Your task to perform on an android device: View the shopping cart on target. Add "razer blade" to the cart on target Image 0: 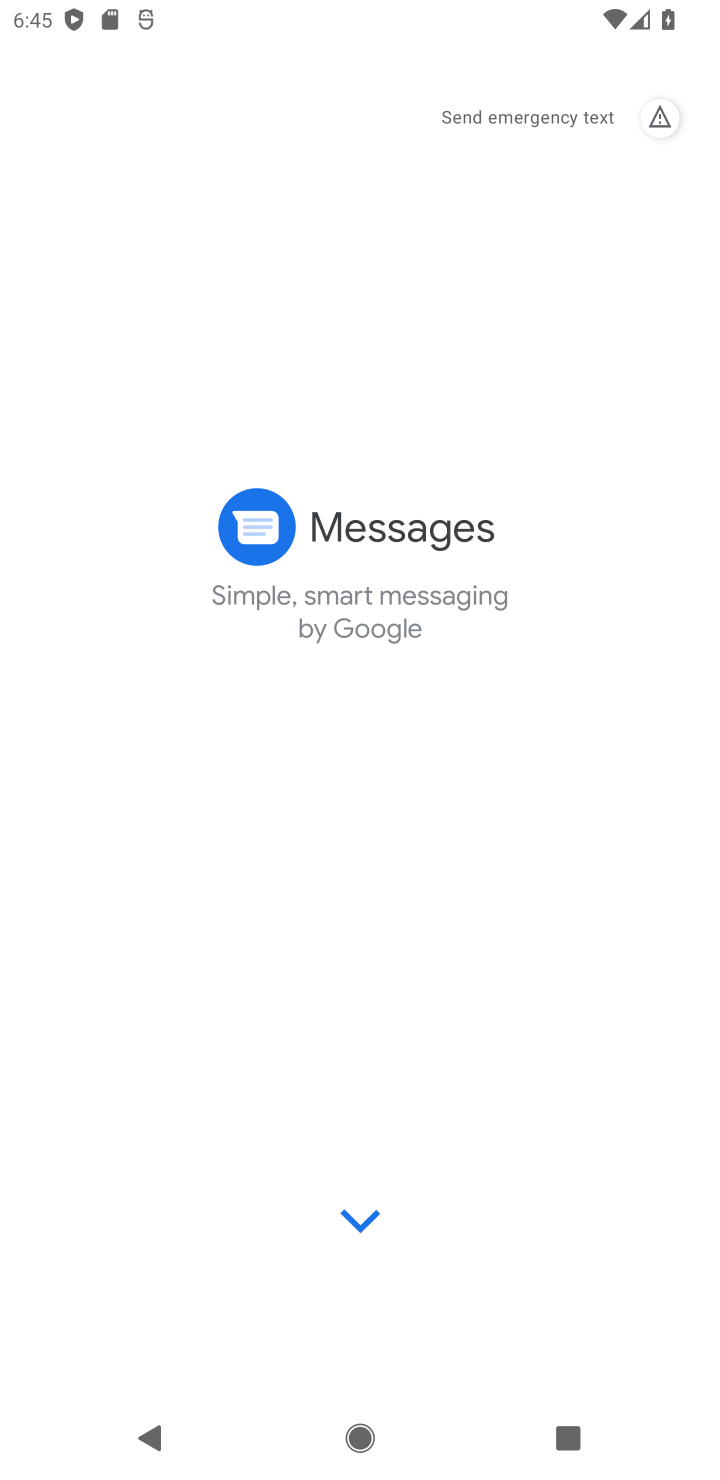
Step 0: press home button
Your task to perform on an android device: View the shopping cart on target. Add "razer blade" to the cart on target Image 1: 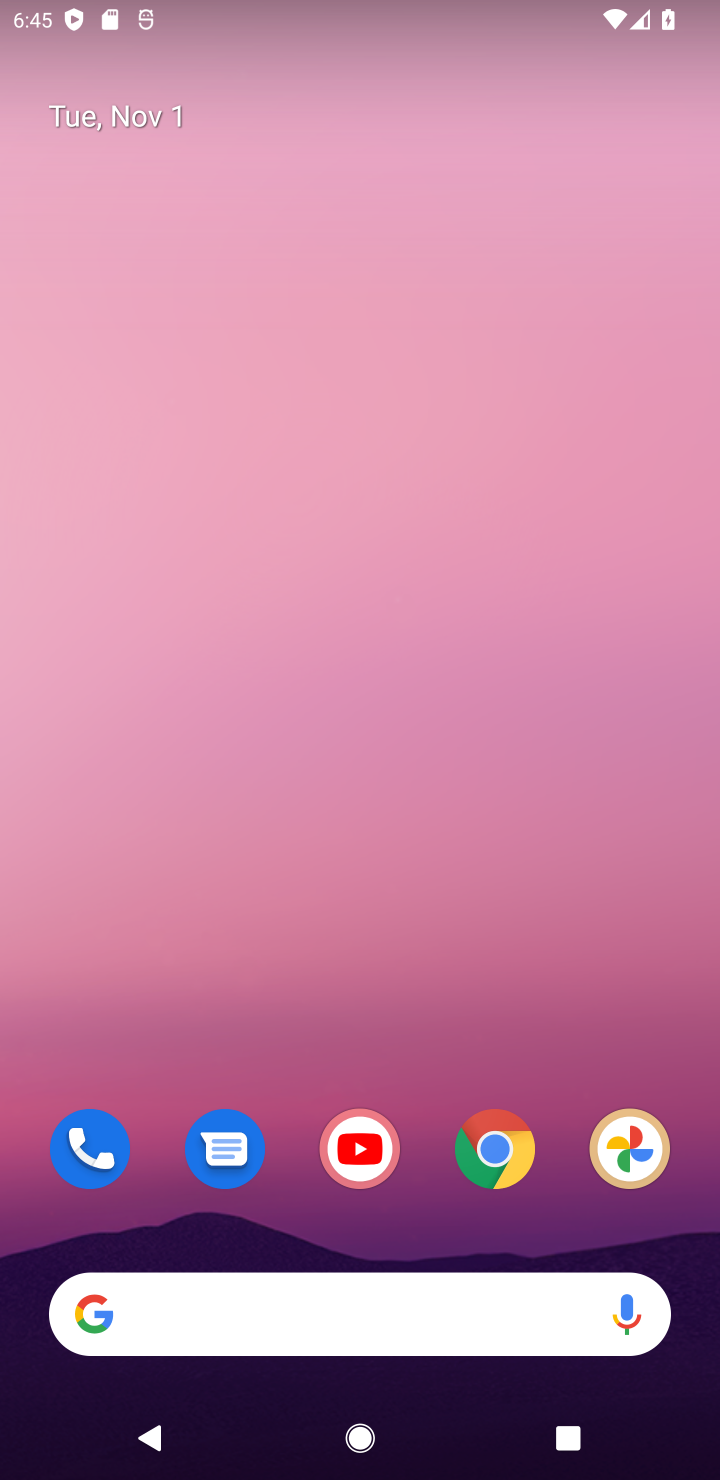
Step 1: drag from (411, 1242) to (487, 263)
Your task to perform on an android device: View the shopping cart on target. Add "razer blade" to the cart on target Image 2: 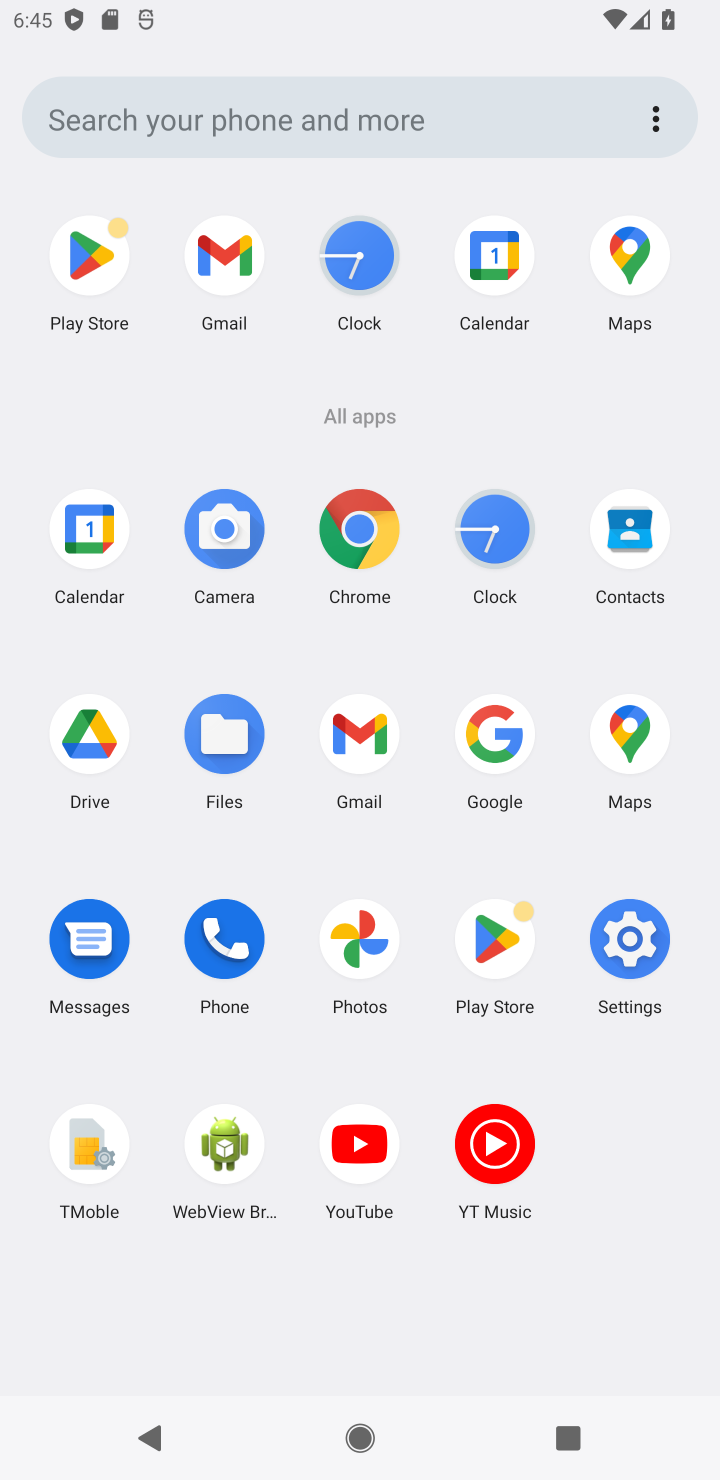
Step 2: click (368, 532)
Your task to perform on an android device: View the shopping cart on target. Add "razer blade" to the cart on target Image 3: 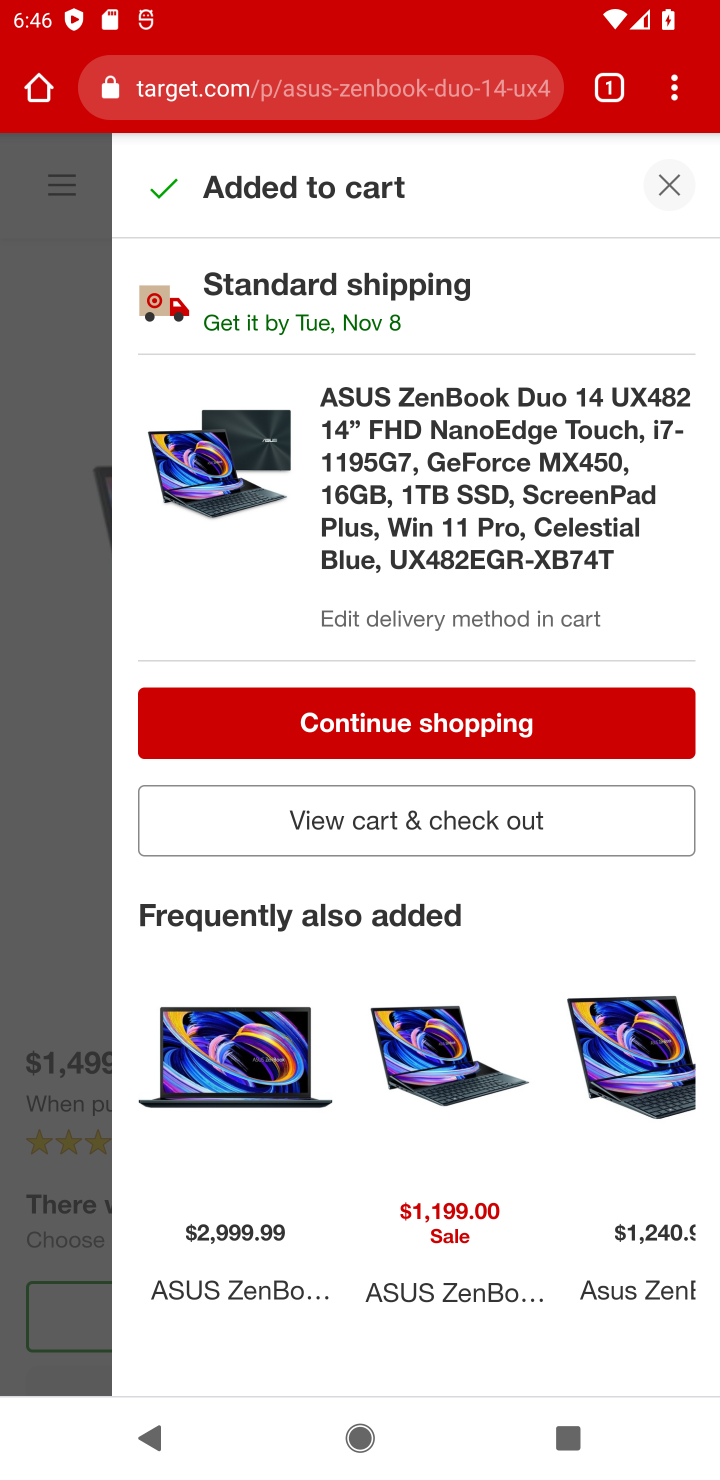
Step 3: click (411, 88)
Your task to perform on an android device: View the shopping cart on target. Add "razer blade" to the cart on target Image 4: 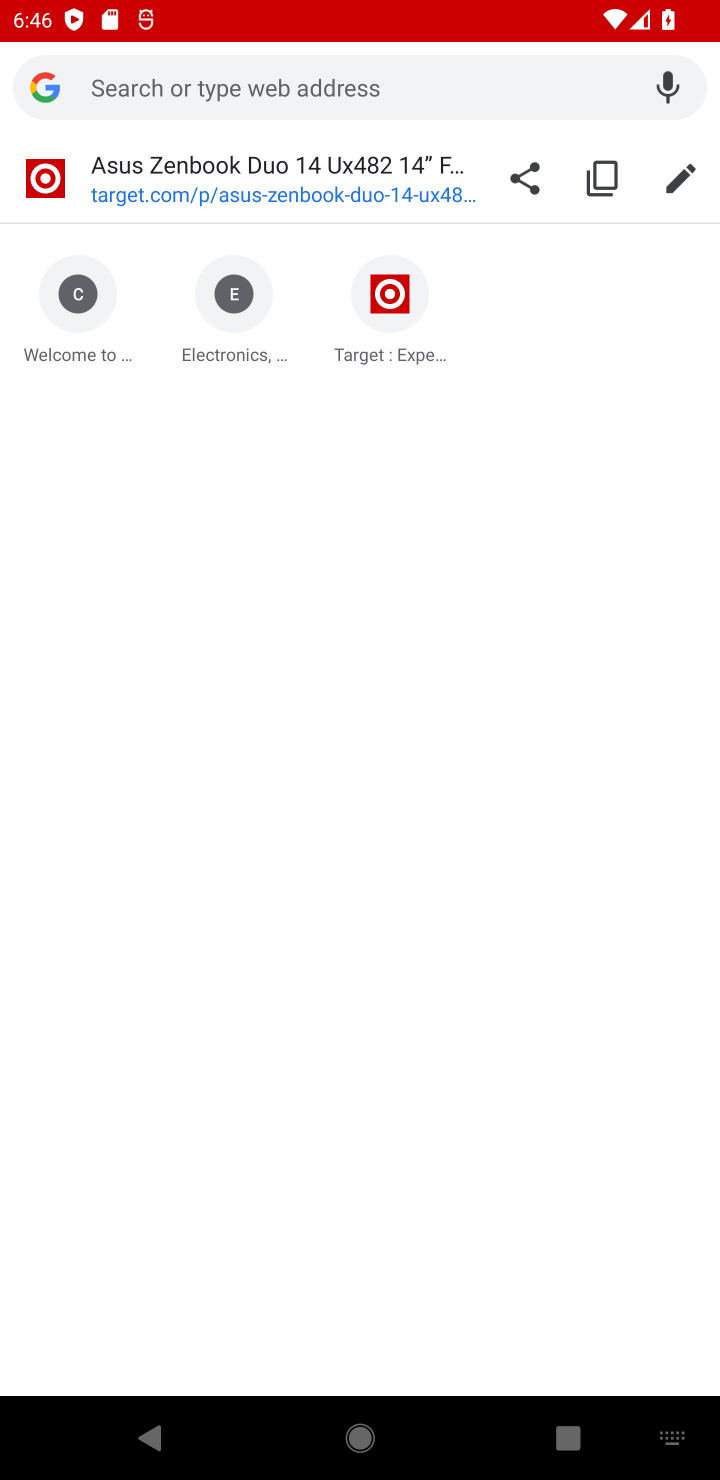
Step 4: type "target.com"
Your task to perform on an android device: View the shopping cart on target. Add "razer blade" to the cart on target Image 5: 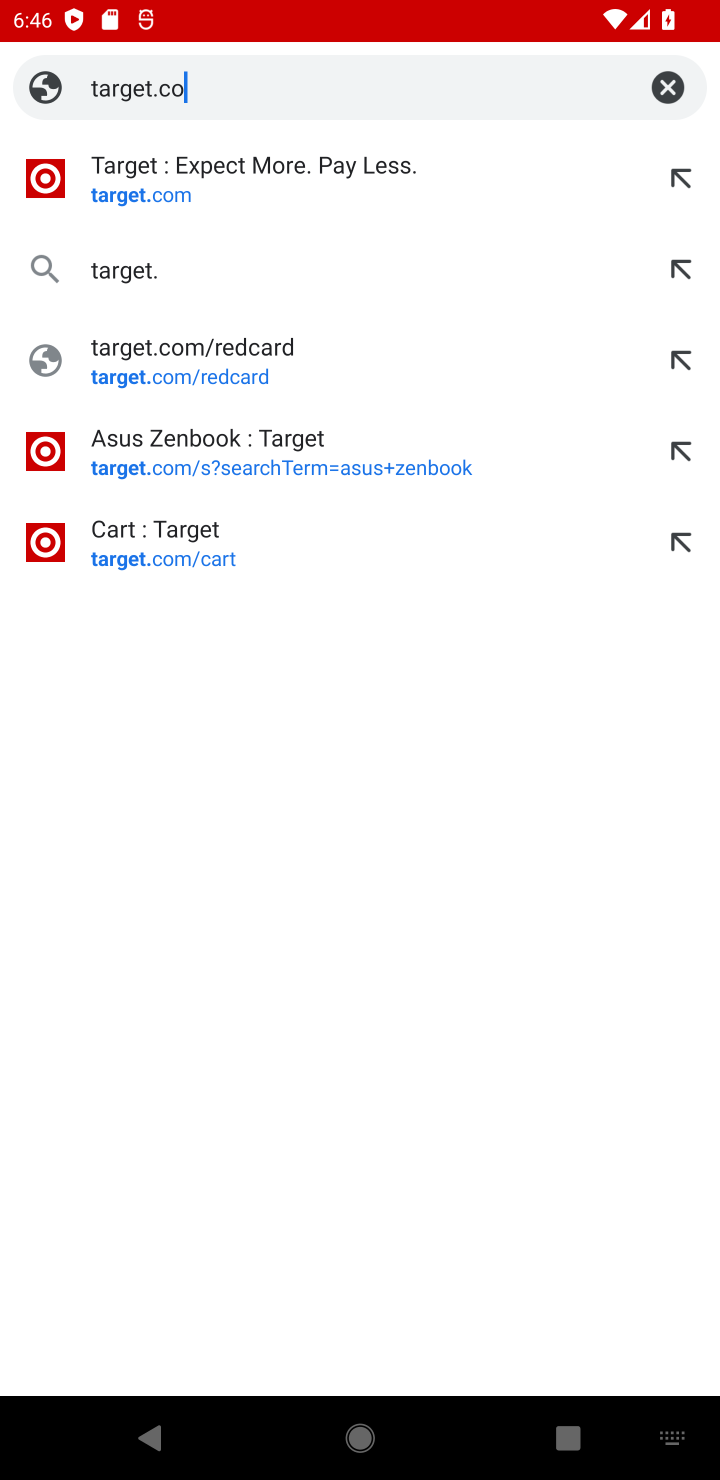
Step 5: press enter
Your task to perform on an android device: View the shopping cart on target. Add "razer blade" to the cart on target Image 6: 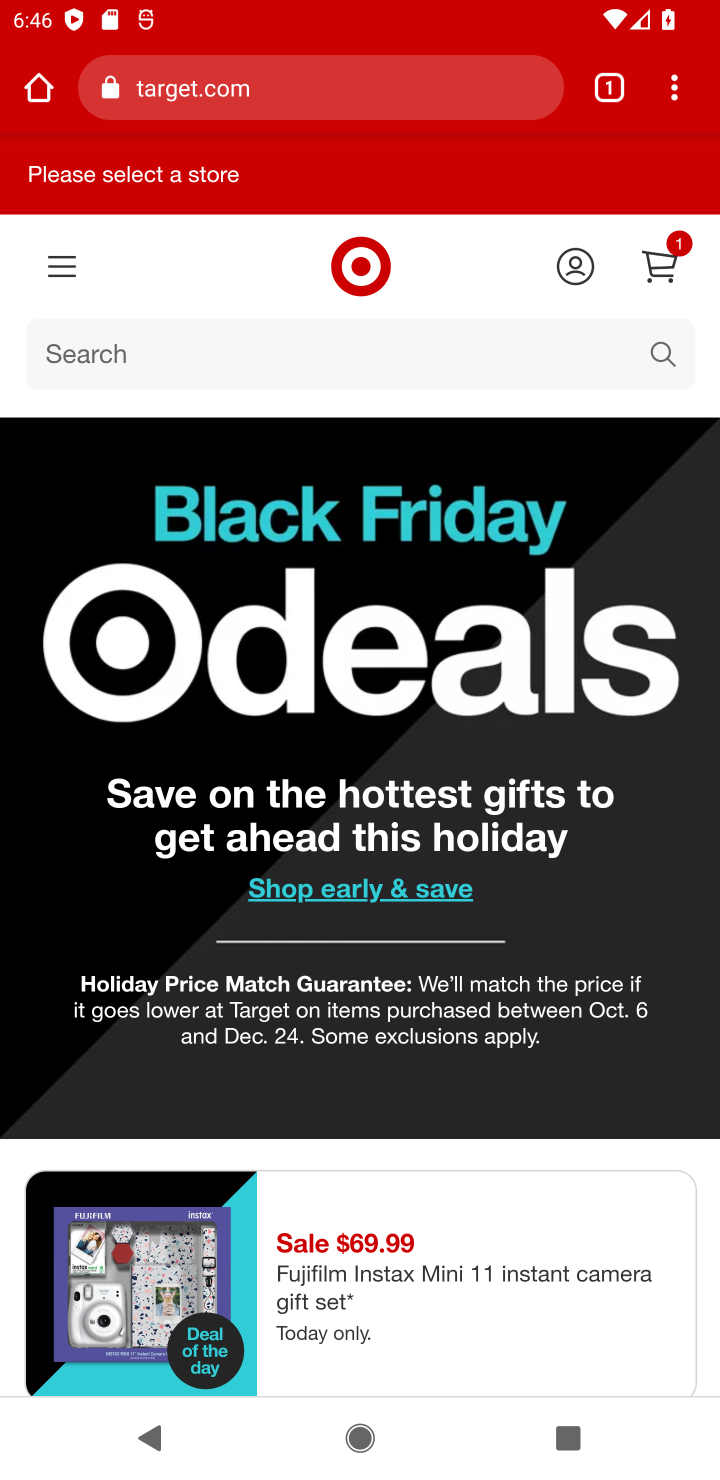
Step 6: click (665, 284)
Your task to perform on an android device: View the shopping cart on target. Add "razer blade" to the cart on target Image 7: 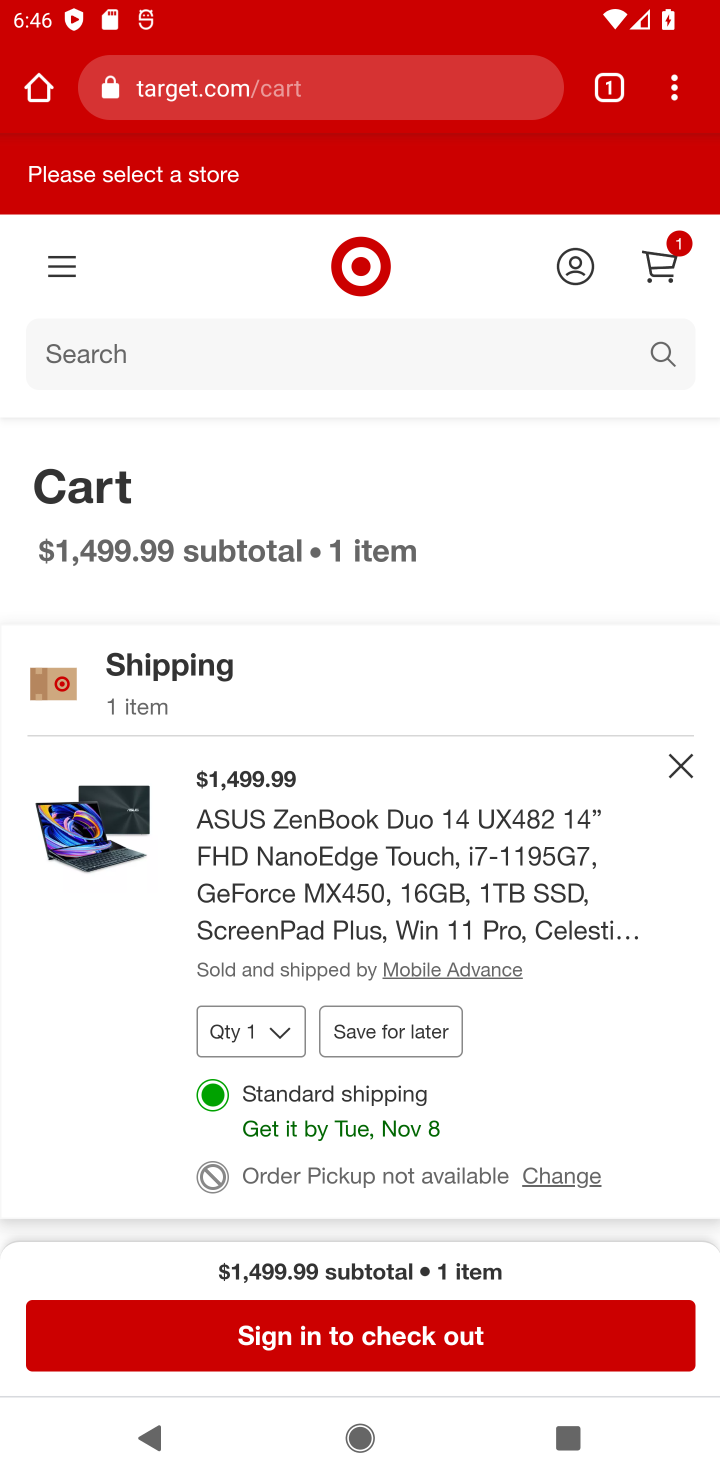
Step 7: click (690, 757)
Your task to perform on an android device: View the shopping cart on target. Add "razer blade" to the cart on target Image 8: 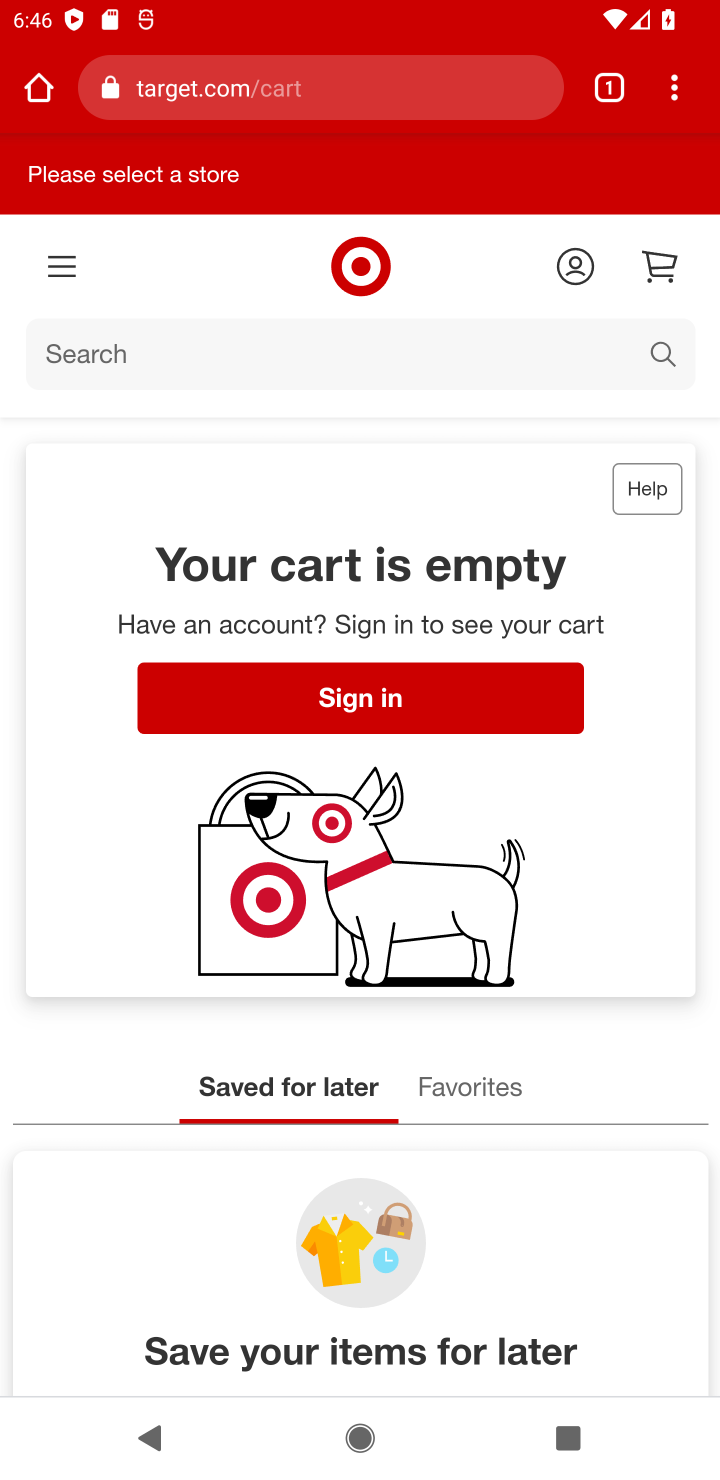
Step 8: click (547, 362)
Your task to perform on an android device: View the shopping cart on target. Add "razer blade" to the cart on target Image 9: 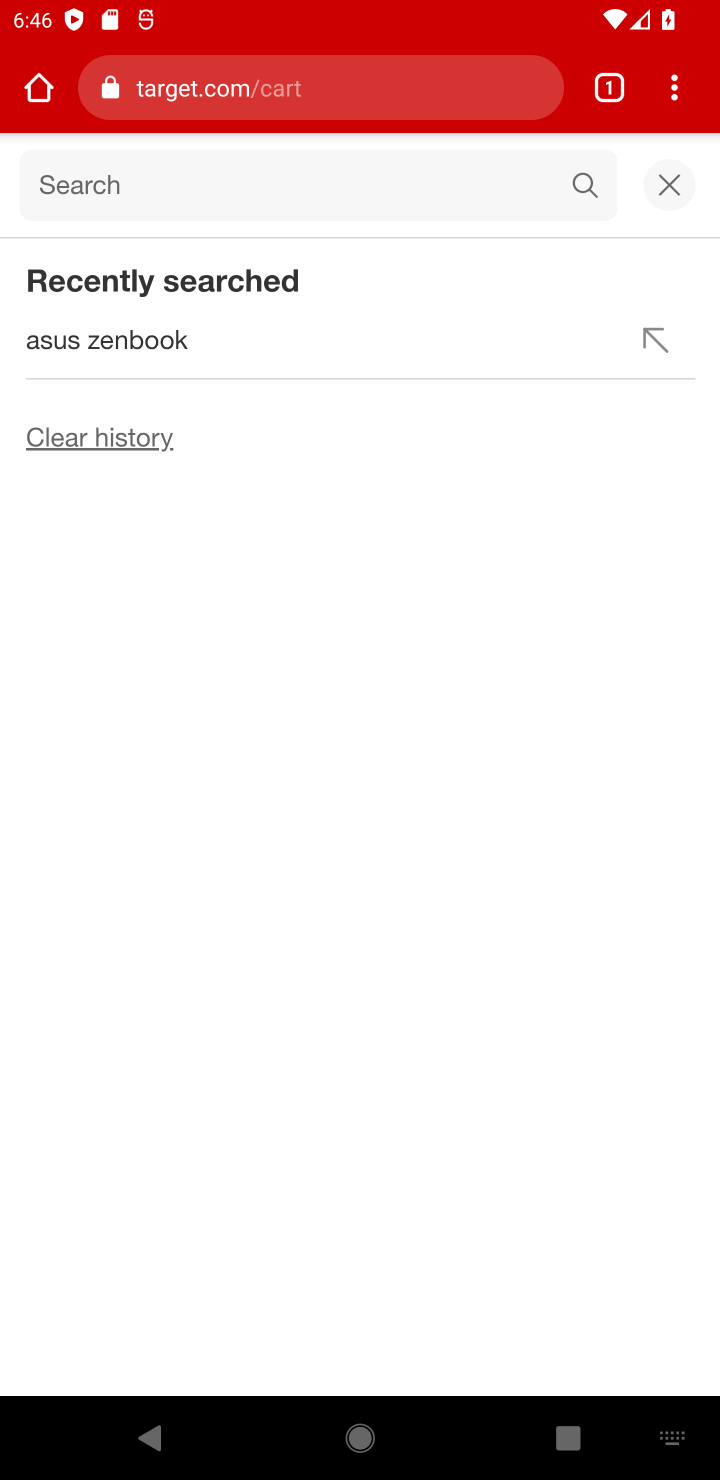
Step 9: type "razer blade"
Your task to perform on an android device: View the shopping cart on target. Add "razer blade" to the cart on target Image 10: 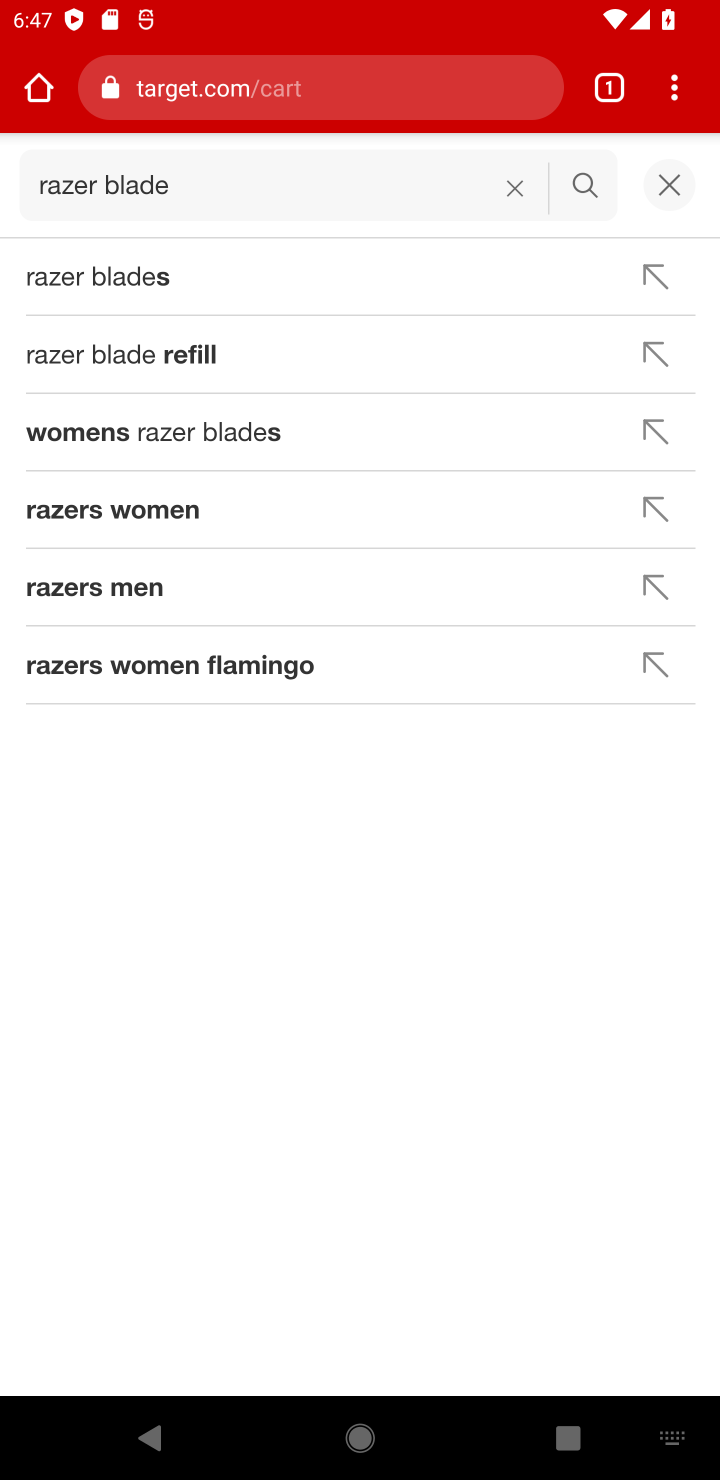
Step 10: press enter
Your task to perform on an android device: View the shopping cart on target. Add "razer blade" to the cart on target Image 11: 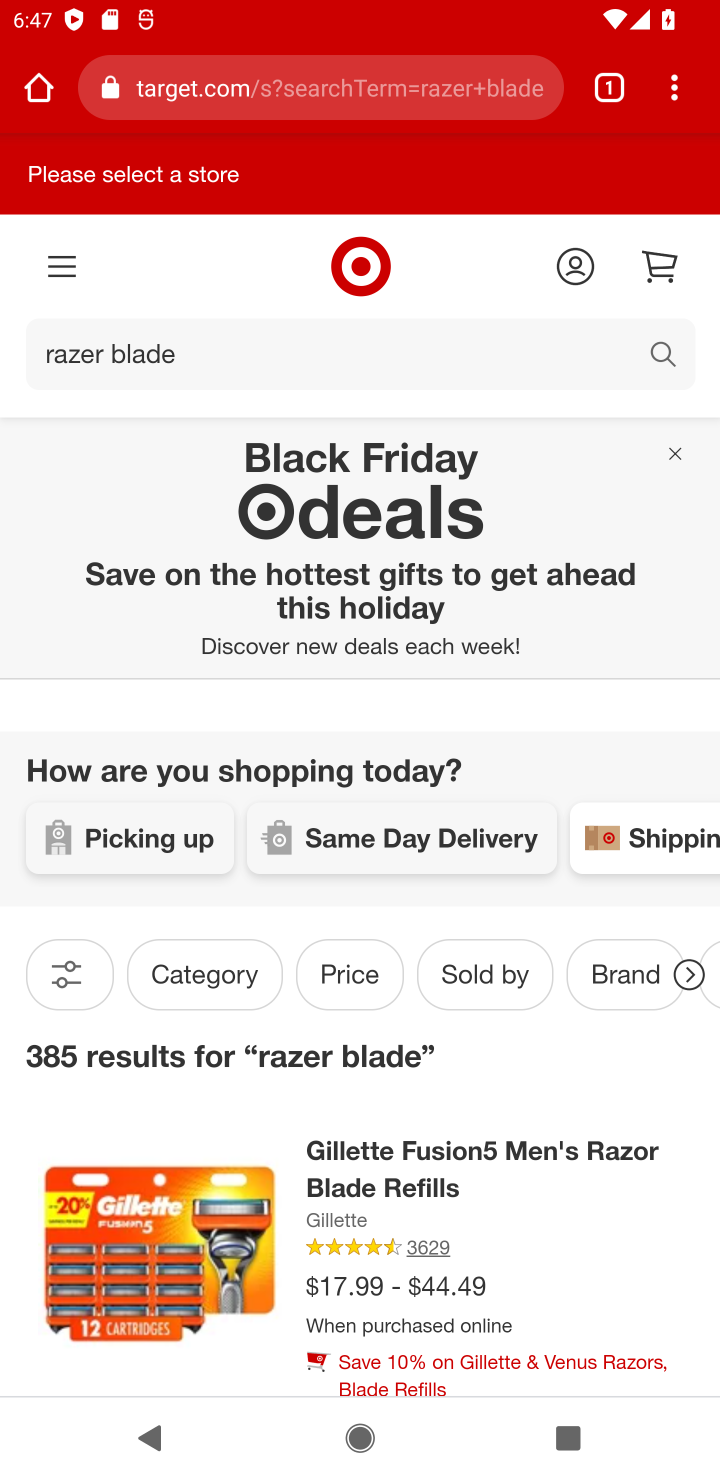
Step 11: drag from (442, 1258) to (485, 690)
Your task to perform on an android device: View the shopping cart on target. Add "razer blade" to the cart on target Image 12: 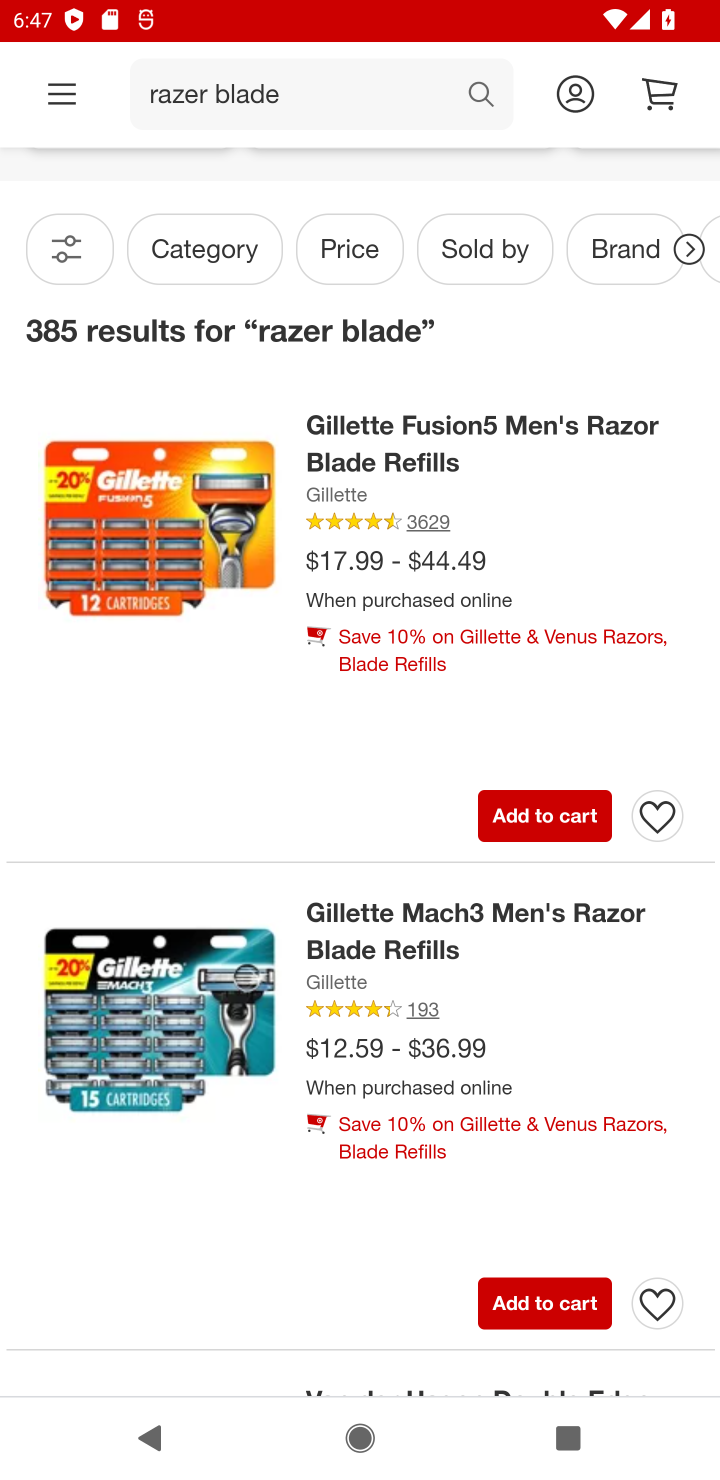
Step 12: click (538, 817)
Your task to perform on an android device: View the shopping cart on target. Add "razer blade" to the cart on target Image 13: 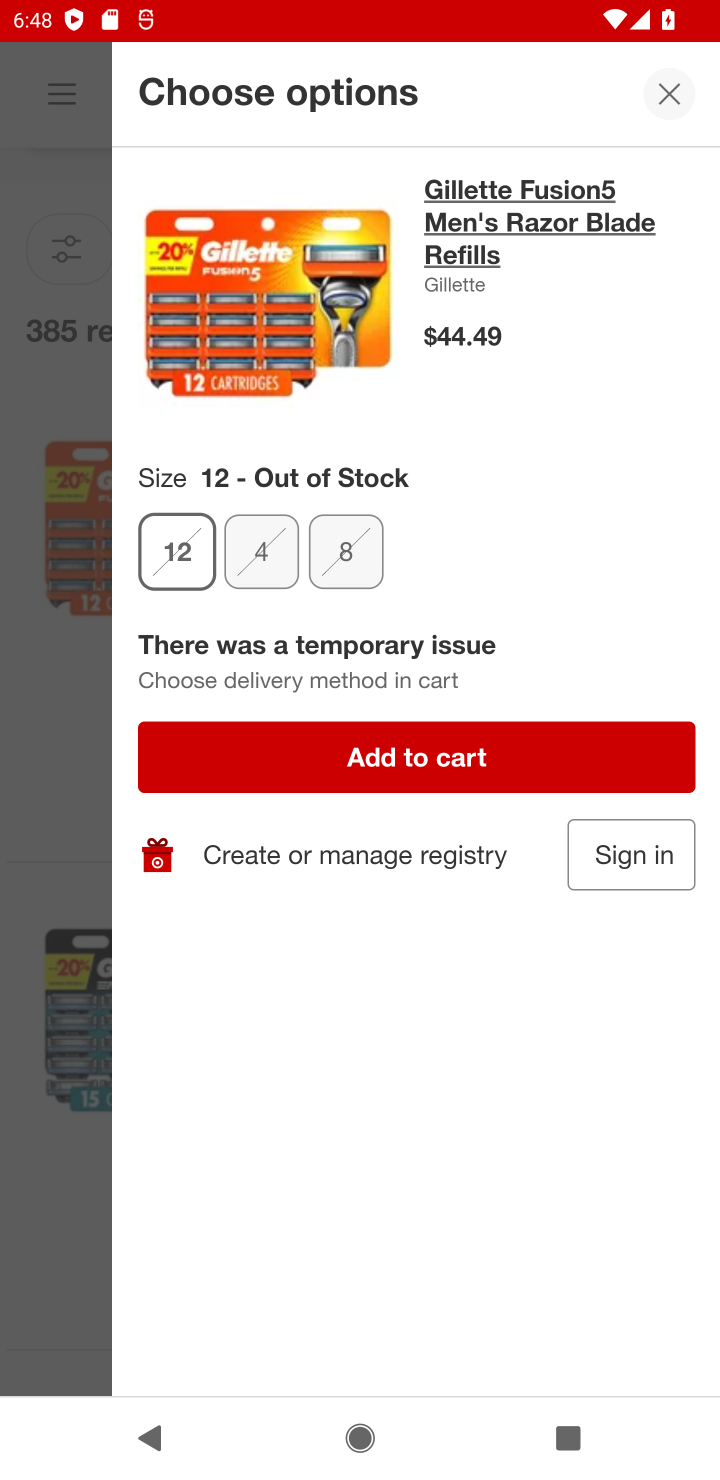
Step 13: click (367, 760)
Your task to perform on an android device: View the shopping cart on target. Add "razer blade" to the cart on target Image 14: 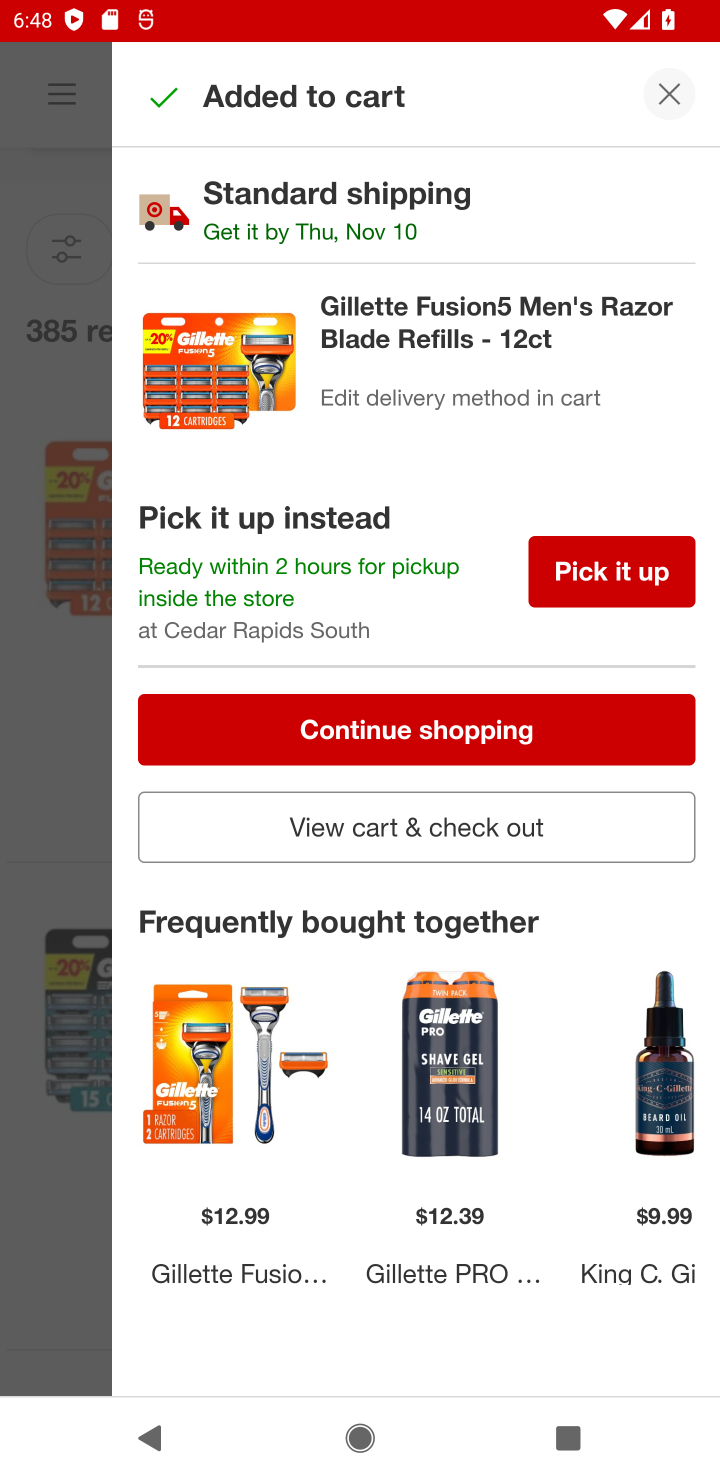
Step 14: task complete